Your task to perform on an android device: change the clock display to digital Image 0: 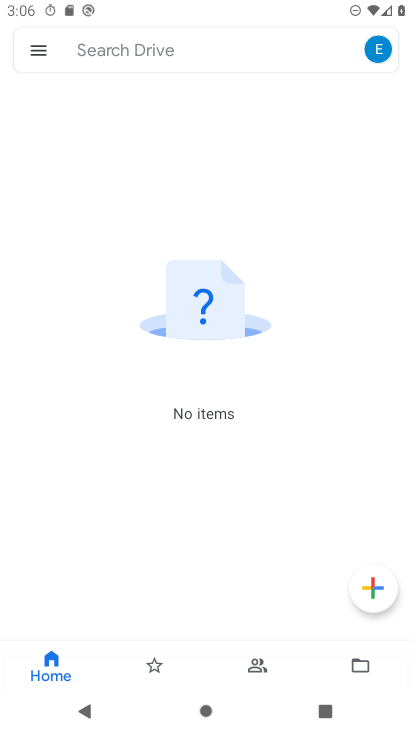
Step 0: press home button
Your task to perform on an android device: change the clock display to digital Image 1: 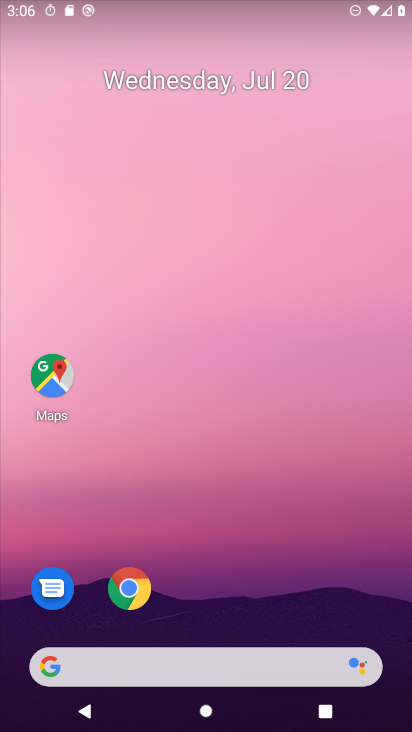
Step 1: drag from (197, 617) to (258, 5)
Your task to perform on an android device: change the clock display to digital Image 2: 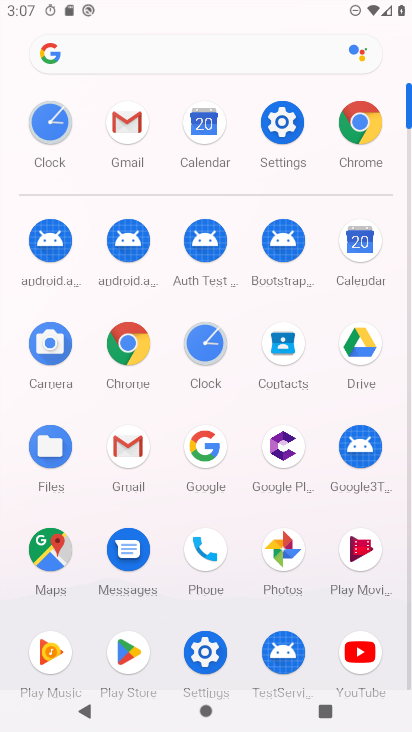
Step 2: click (205, 325)
Your task to perform on an android device: change the clock display to digital Image 3: 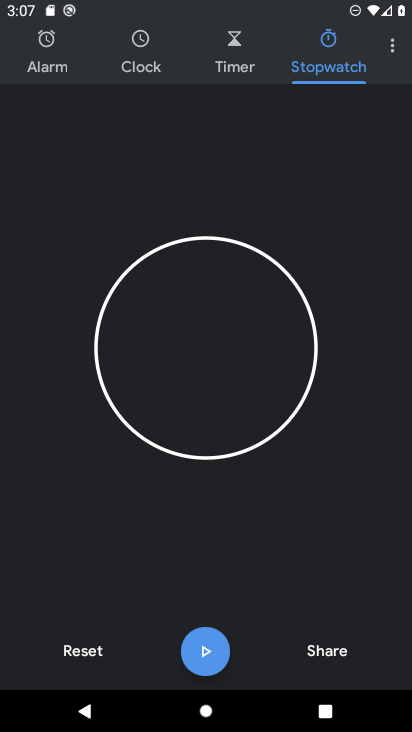
Step 3: click (389, 56)
Your task to perform on an android device: change the clock display to digital Image 4: 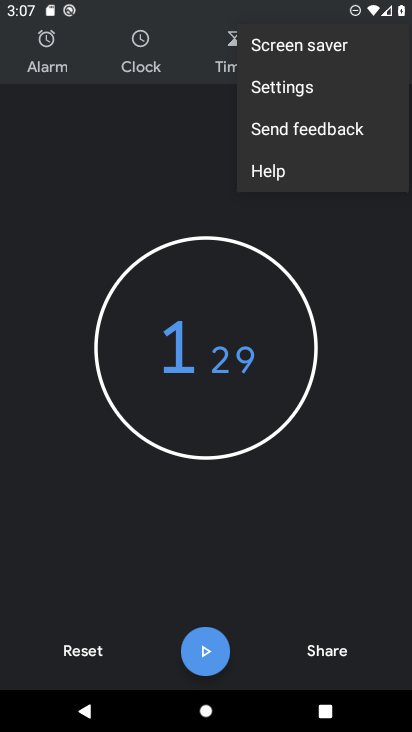
Step 4: click (294, 77)
Your task to perform on an android device: change the clock display to digital Image 5: 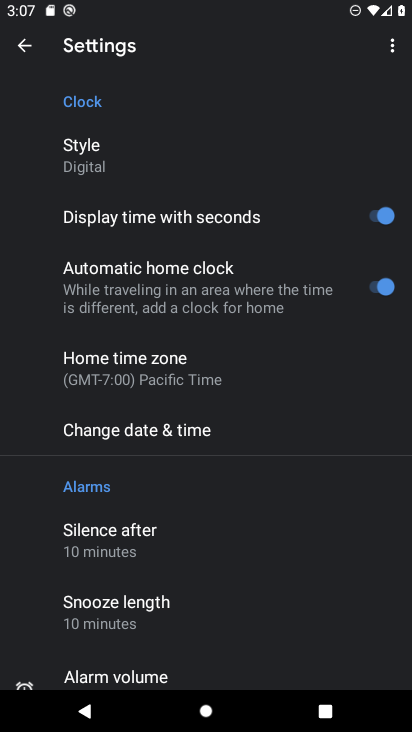
Step 5: click (98, 159)
Your task to perform on an android device: change the clock display to digital Image 6: 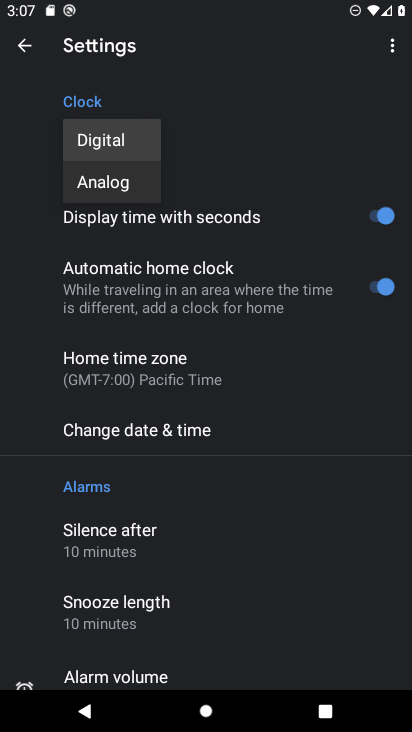
Step 6: click (89, 146)
Your task to perform on an android device: change the clock display to digital Image 7: 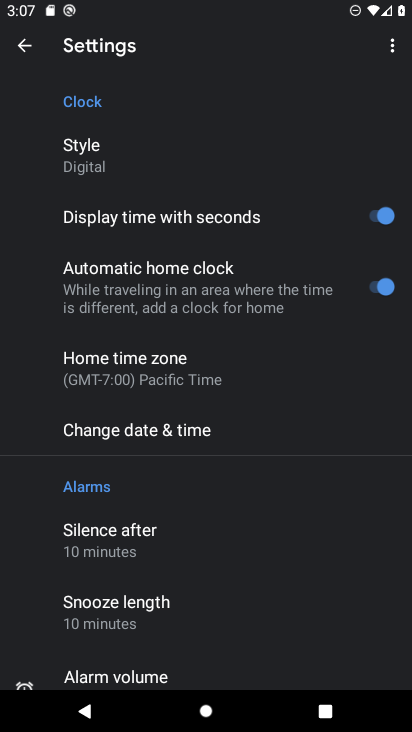
Step 7: task complete